Your task to perform on an android device: delete a single message in the gmail app Image 0: 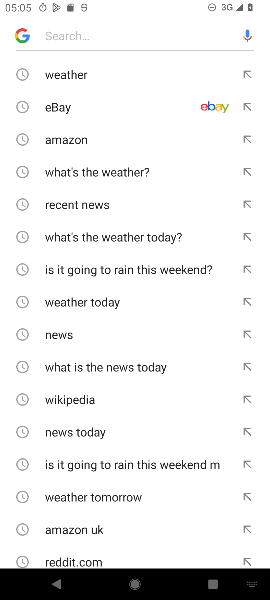
Step 0: press home button
Your task to perform on an android device: delete a single message in the gmail app Image 1: 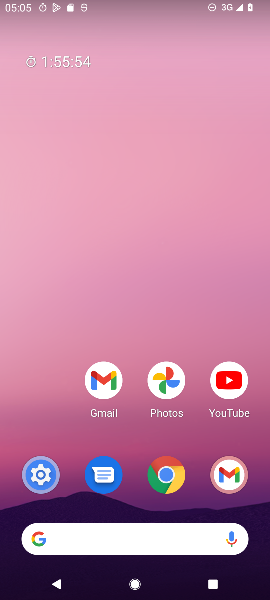
Step 1: drag from (61, 429) to (71, 184)
Your task to perform on an android device: delete a single message in the gmail app Image 2: 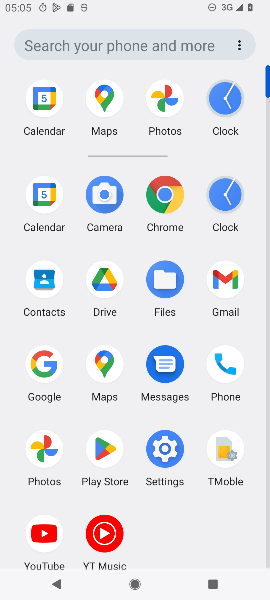
Step 2: click (233, 280)
Your task to perform on an android device: delete a single message in the gmail app Image 3: 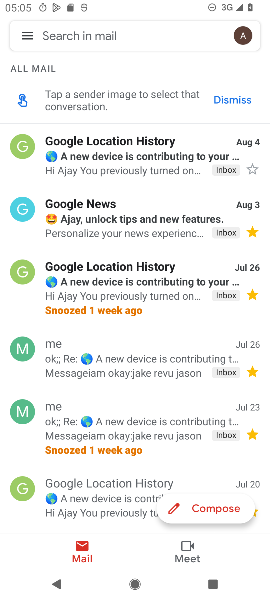
Step 3: click (177, 361)
Your task to perform on an android device: delete a single message in the gmail app Image 4: 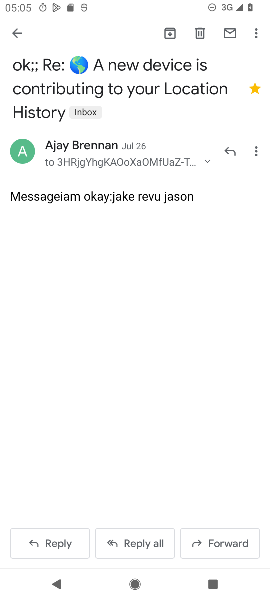
Step 4: click (199, 30)
Your task to perform on an android device: delete a single message in the gmail app Image 5: 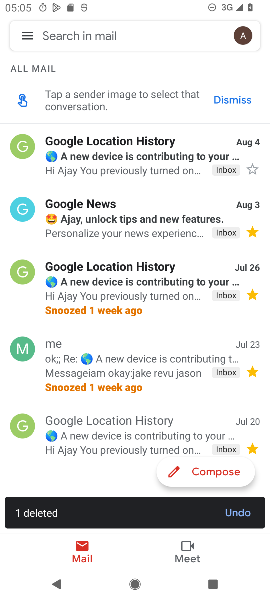
Step 5: task complete